Your task to perform on an android device: turn on location history Image 0: 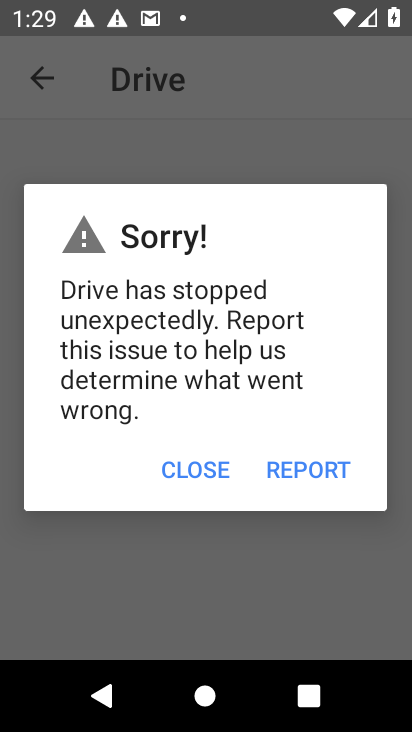
Step 0: press home button
Your task to perform on an android device: turn on location history Image 1: 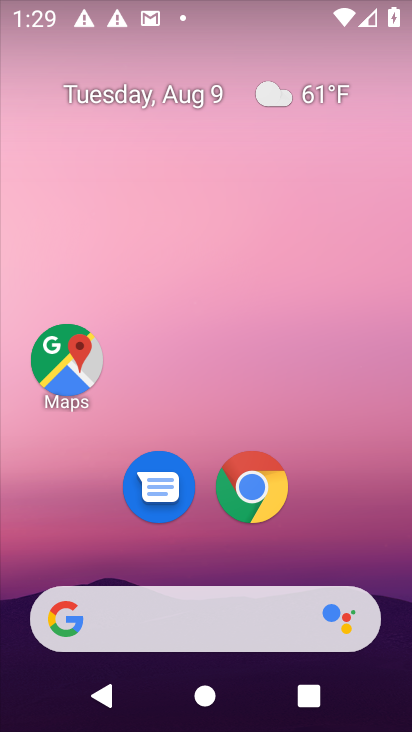
Step 1: drag from (262, 608) to (212, 4)
Your task to perform on an android device: turn on location history Image 2: 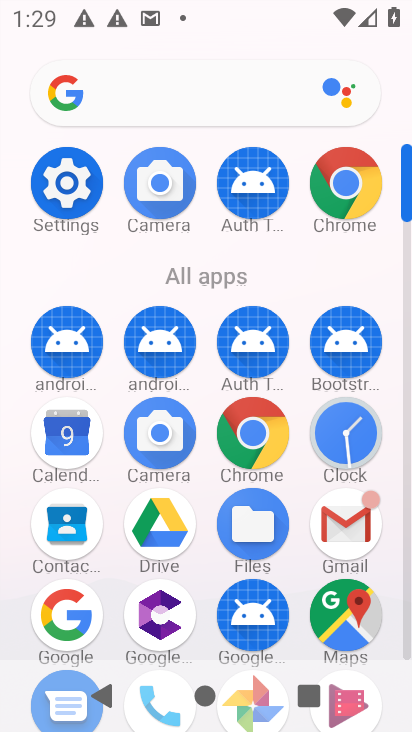
Step 2: click (85, 184)
Your task to perform on an android device: turn on location history Image 3: 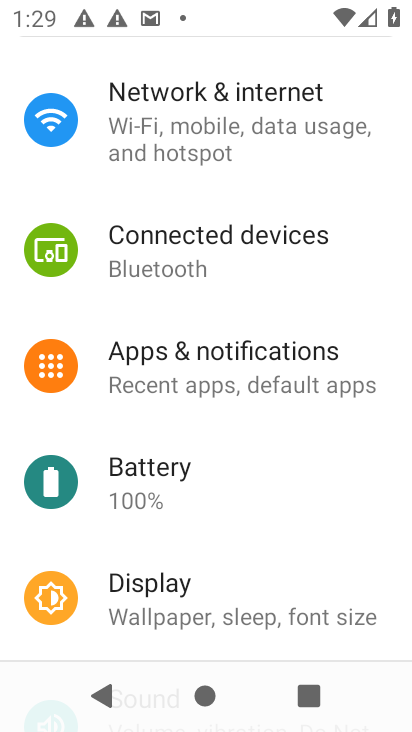
Step 3: drag from (264, 551) to (299, 135)
Your task to perform on an android device: turn on location history Image 4: 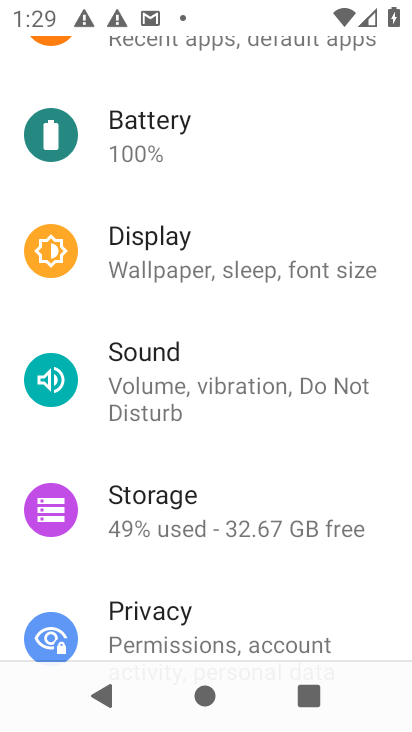
Step 4: drag from (342, 594) to (318, 204)
Your task to perform on an android device: turn on location history Image 5: 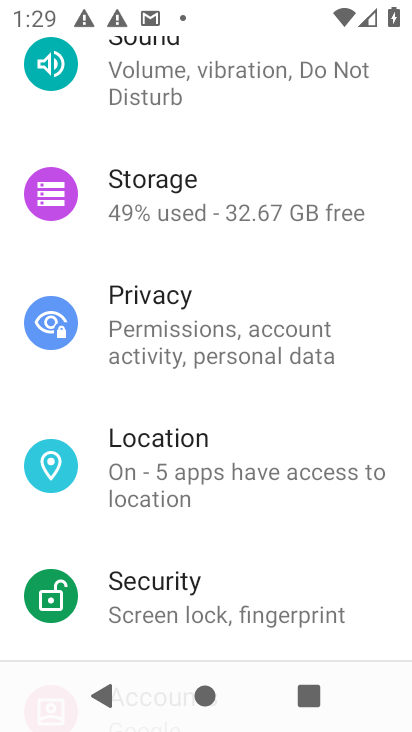
Step 5: click (227, 459)
Your task to perform on an android device: turn on location history Image 6: 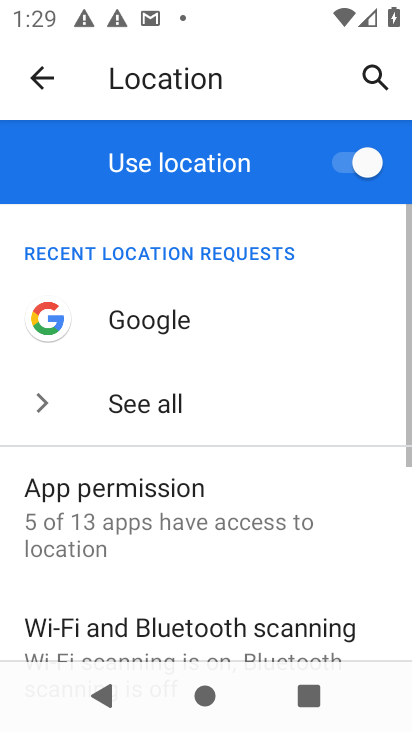
Step 6: task complete